Your task to perform on an android device: change text size in settings app Image 0: 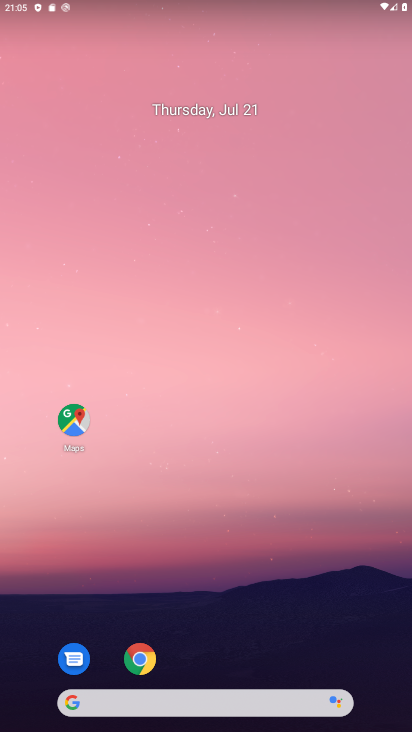
Step 0: drag from (260, 695) to (226, 105)
Your task to perform on an android device: change text size in settings app Image 1: 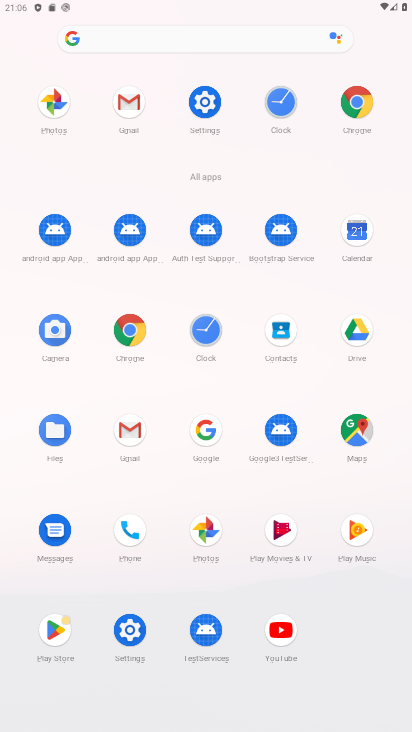
Step 1: click (134, 630)
Your task to perform on an android device: change text size in settings app Image 2: 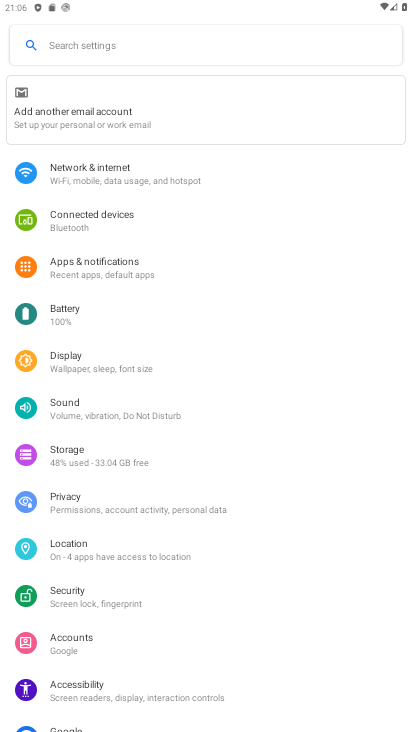
Step 2: drag from (104, 706) to (167, 414)
Your task to perform on an android device: change text size in settings app Image 3: 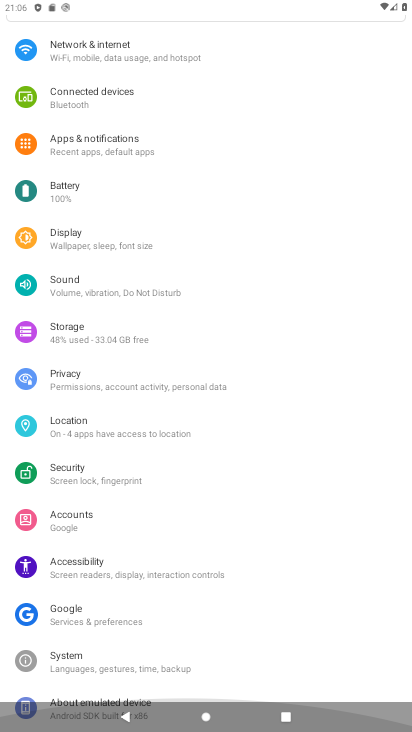
Step 3: click (167, 414)
Your task to perform on an android device: change text size in settings app Image 4: 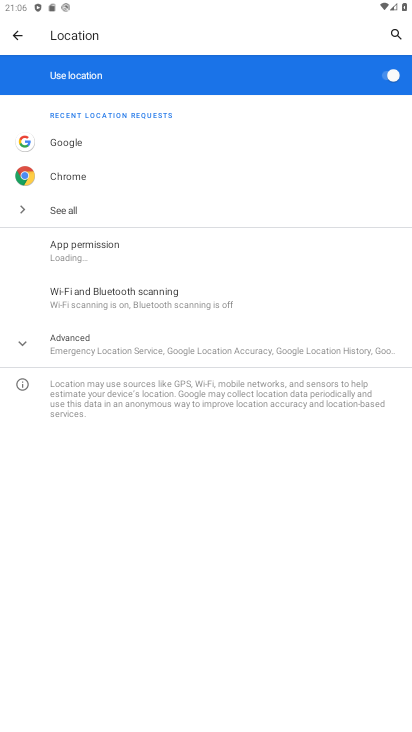
Step 4: press back button
Your task to perform on an android device: change text size in settings app Image 5: 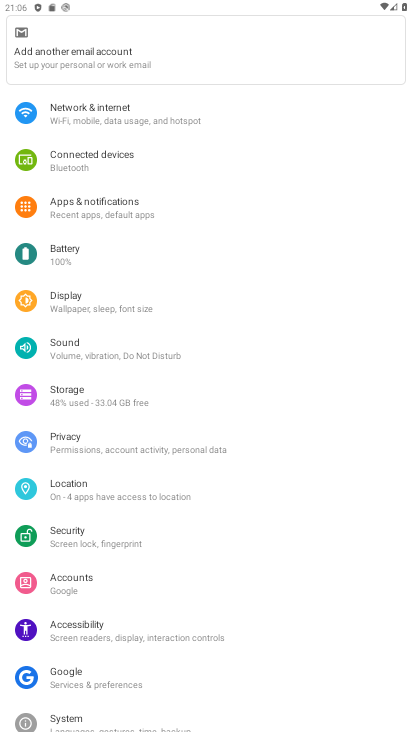
Step 5: click (135, 638)
Your task to perform on an android device: change text size in settings app Image 6: 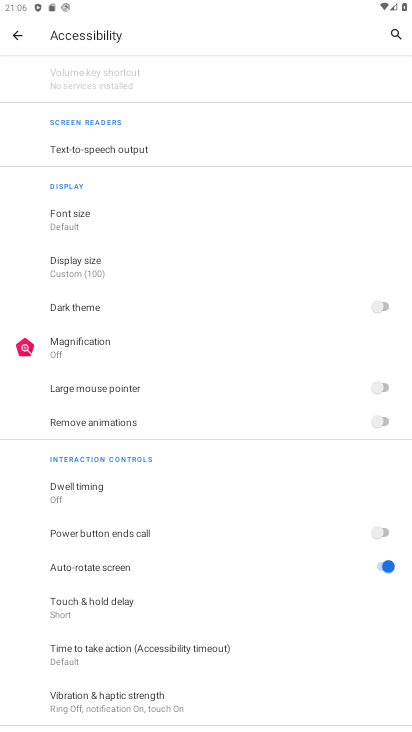
Step 6: click (69, 220)
Your task to perform on an android device: change text size in settings app Image 7: 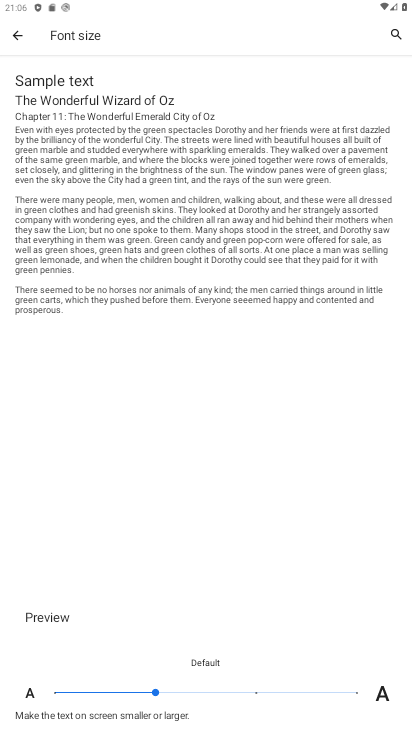
Step 7: click (258, 698)
Your task to perform on an android device: change text size in settings app Image 8: 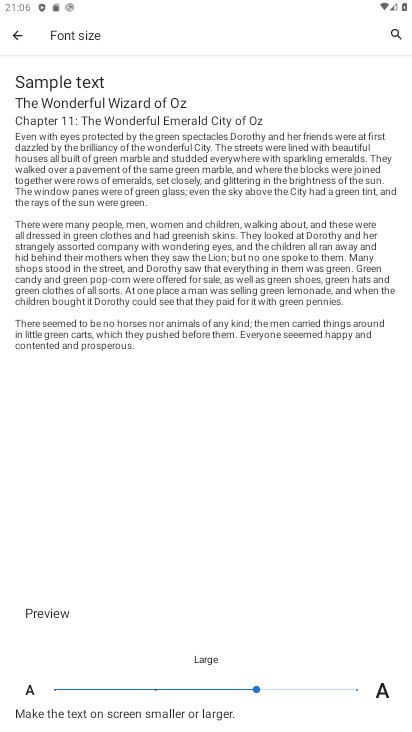
Step 8: task complete